Your task to perform on an android device: turn on the 24-hour format for clock Image 0: 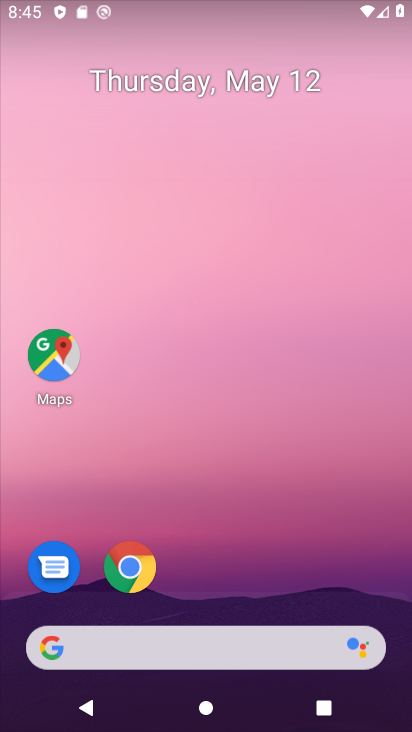
Step 0: drag from (187, 622) to (287, 158)
Your task to perform on an android device: turn on the 24-hour format for clock Image 1: 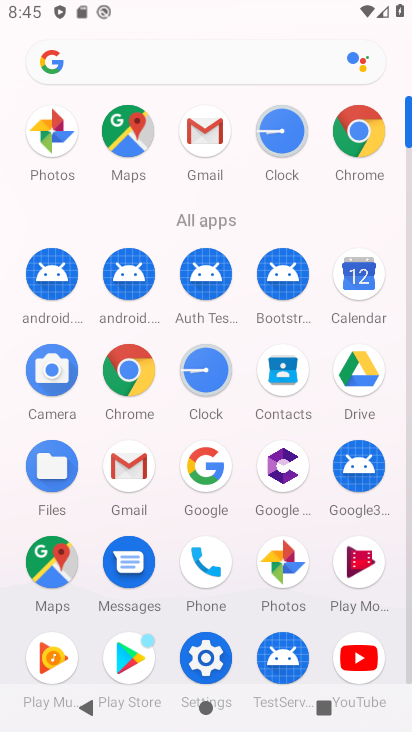
Step 1: click (204, 379)
Your task to perform on an android device: turn on the 24-hour format for clock Image 2: 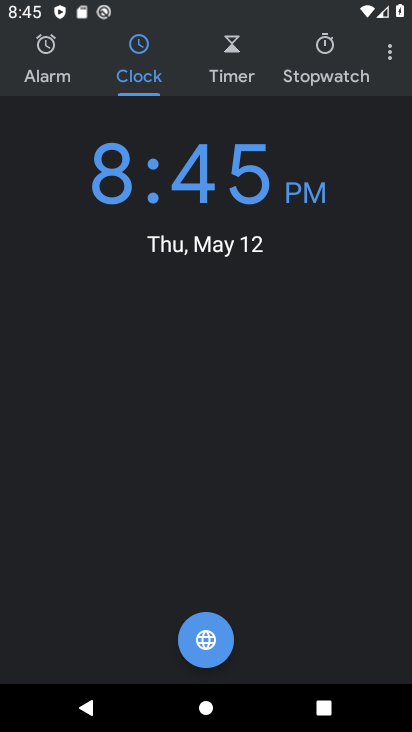
Step 2: click (393, 62)
Your task to perform on an android device: turn on the 24-hour format for clock Image 3: 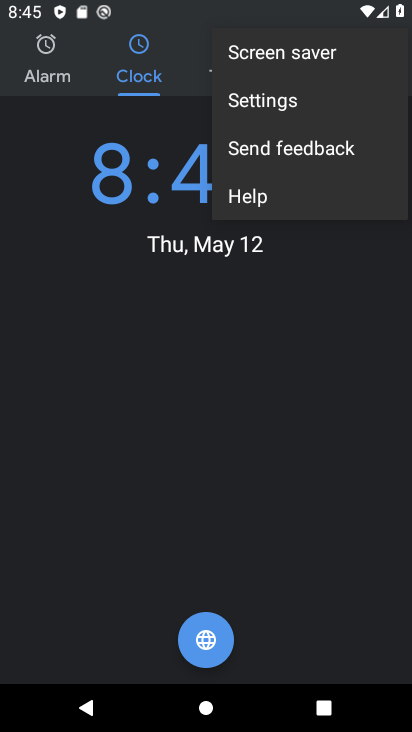
Step 3: click (343, 105)
Your task to perform on an android device: turn on the 24-hour format for clock Image 4: 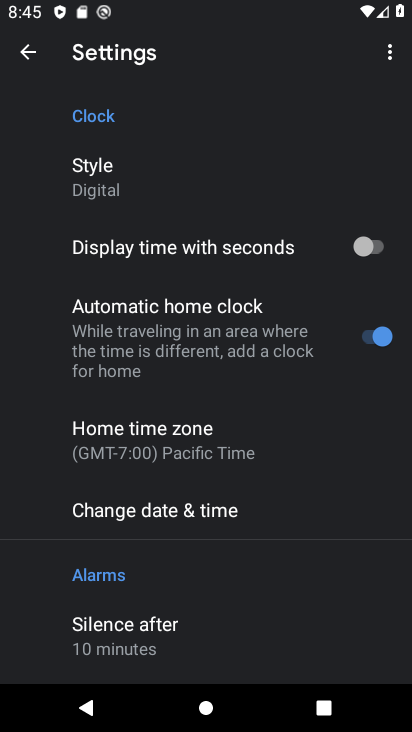
Step 4: click (263, 504)
Your task to perform on an android device: turn on the 24-hour format for clock Image 5: 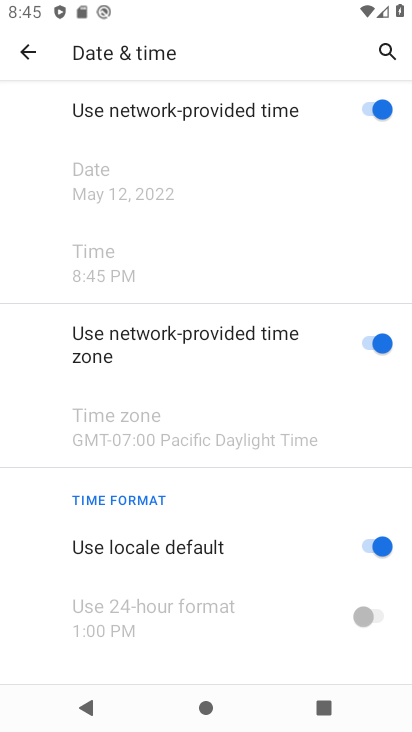
Step 5: click (375, 550)
Your task to perform on an android device: turn on the 24-hour format for clock Image 6: 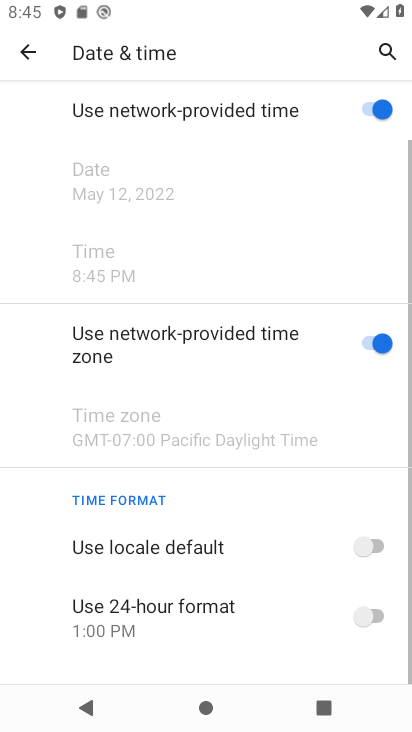
Step 6: click (387, 616)
Your task to perform on an android device: turn on the 24-hour format for clock Image 7: 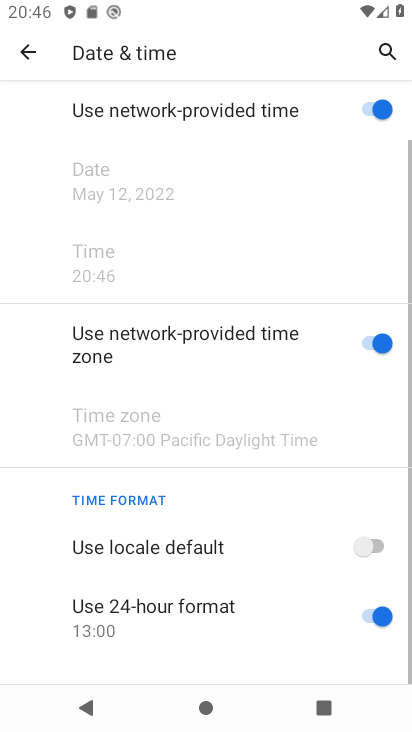
Step 7: task complete